Your task to perform on an android device: Search for the new iphone 13 pro on Etsy. Image 0: 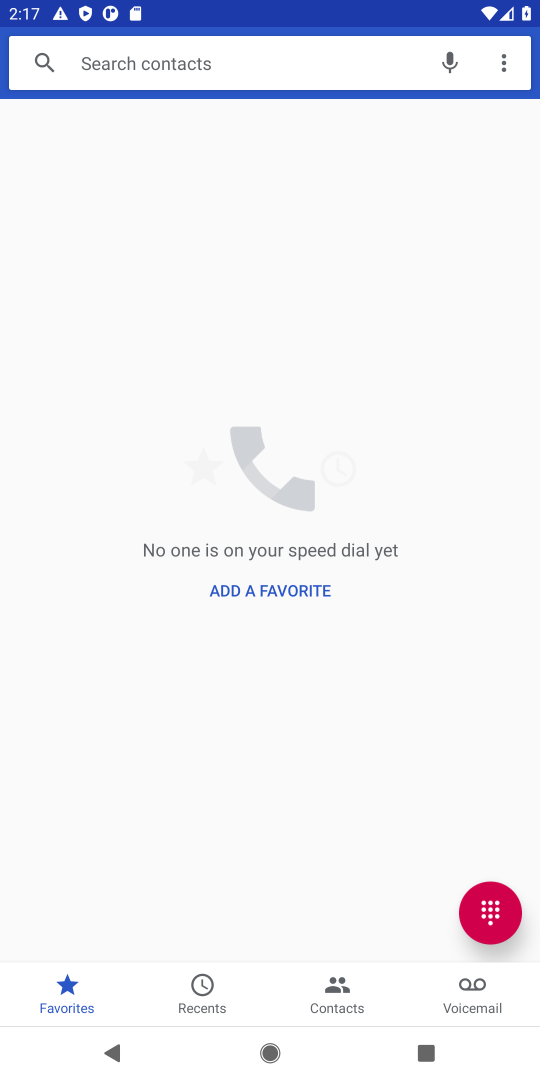
Step 0: press home button
Your task to perform on an android device: Search for the new iphone 13 pro on Etsy. Image 1: 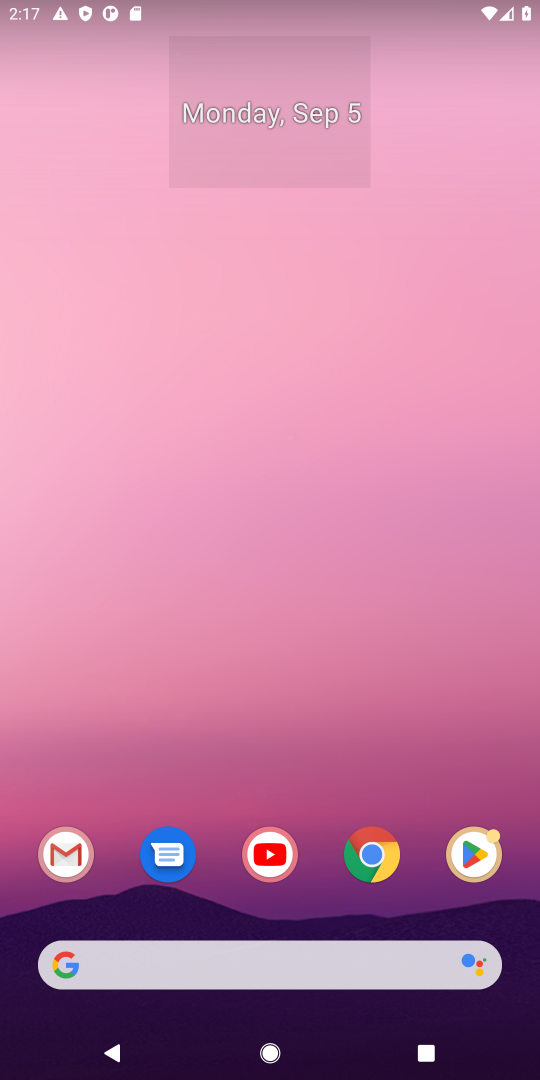
Step 1: click (392, 960)
Your task to perform on an android device: Search for the new iphone 13 pro on Etsy. Image 2: 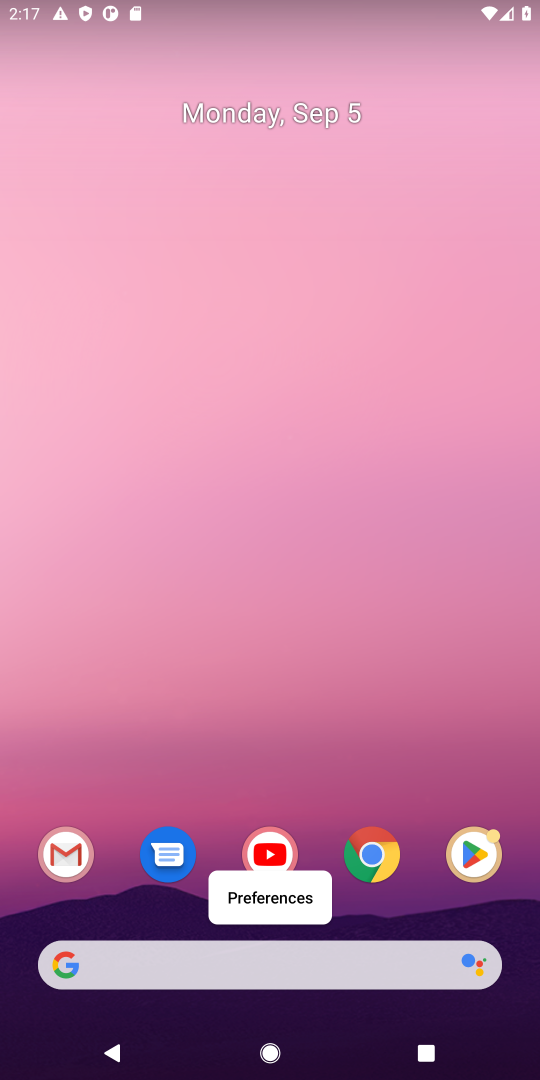
Step 2: click (197, 967)
Your task to perform on an android device: Search for the new iphone 13 pro on Etsy. Image 3: 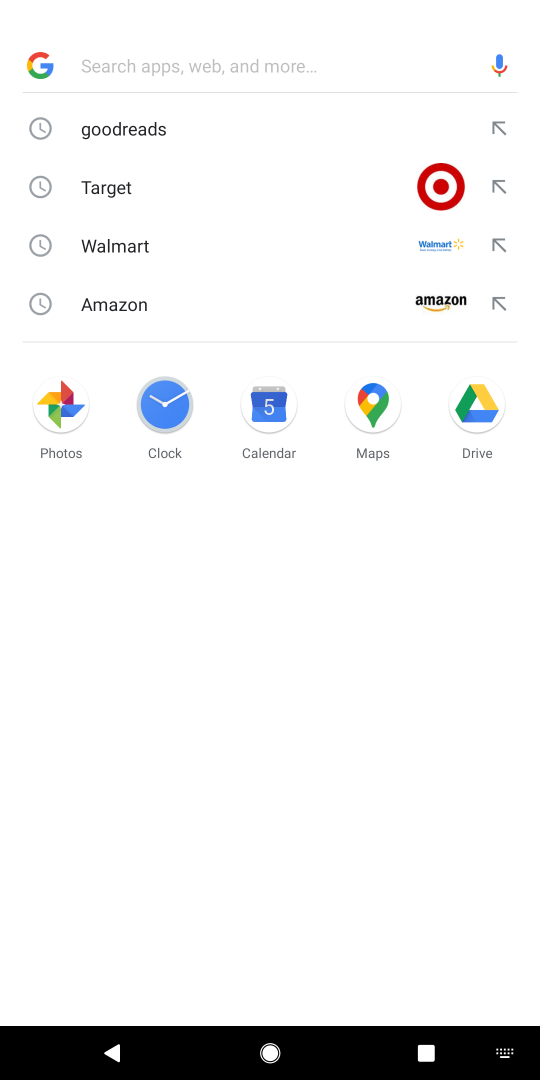
Step 3: type "etsy"
Your task to perform on an android device: Search for the new iphone 13 pro on Etsy. Image 4: 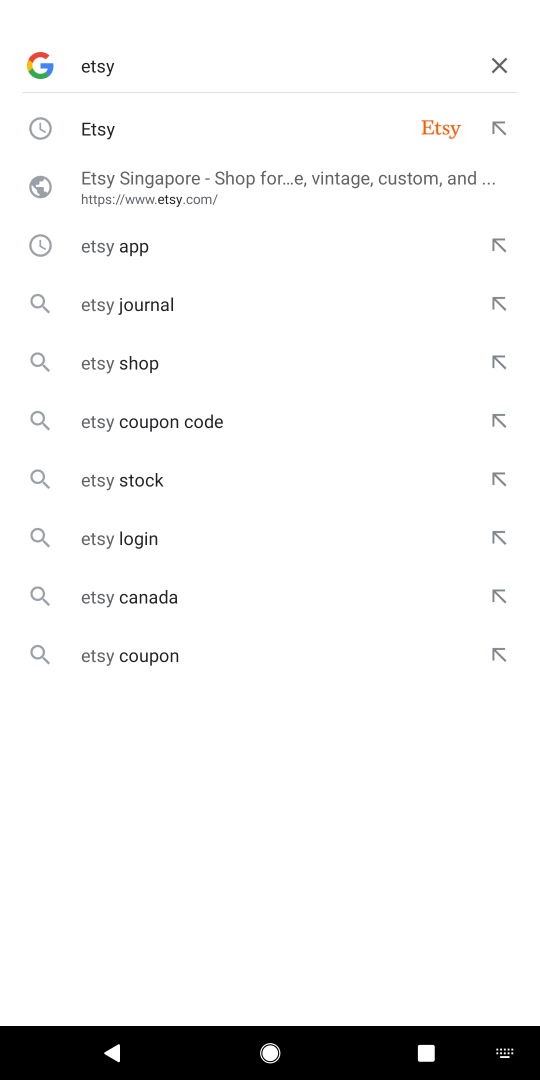
Step 4: press enter
Your task to perform on an android device: Search for the new iphone 13 pro on Etsy. Image 5: 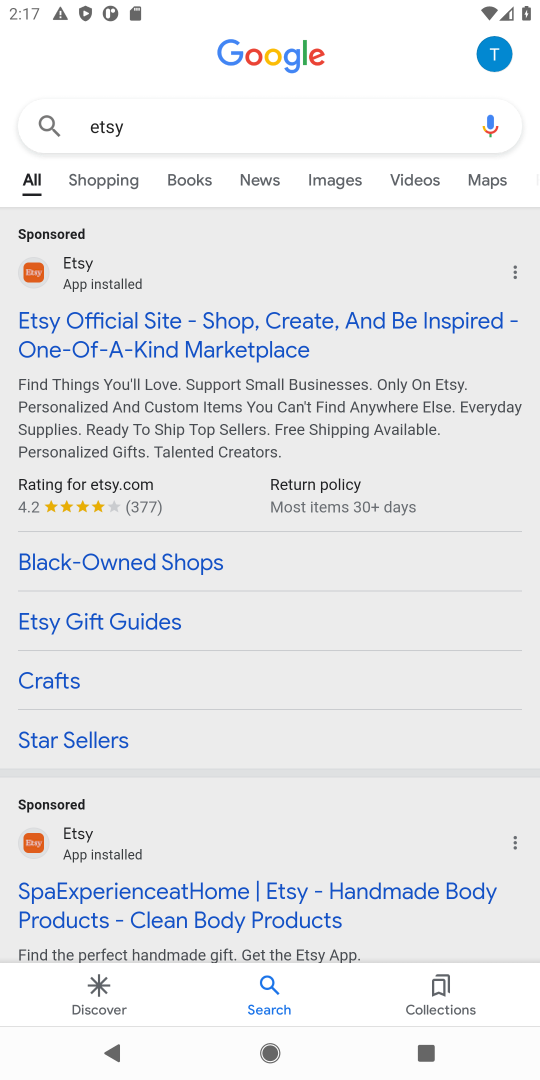
Step 5: click (161, 339)
Your task to perform on an android device: Search for the new iphone 13 pro on Etsy. Image 6: 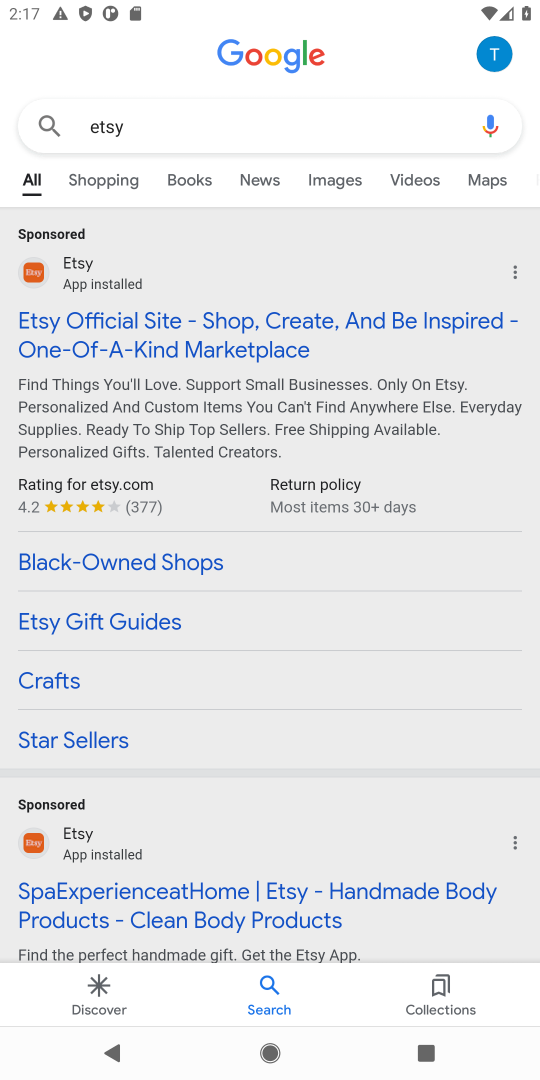
Step 6: click (230, 329)
Your task to perform on an android device: Search for the new iphone 13 pro on Etsy. Image 7: 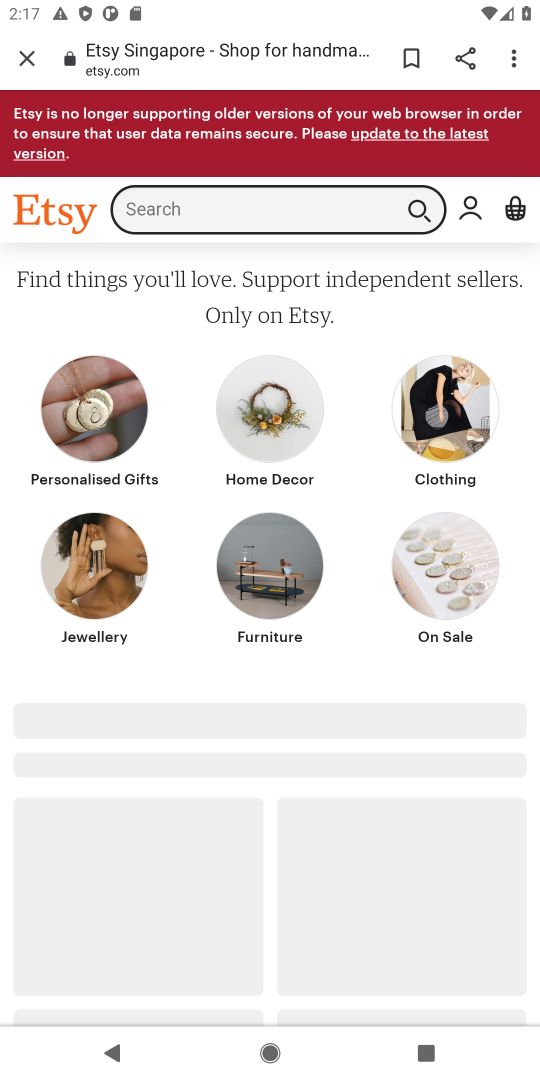
Step 7: click (258, 199)
Your task to perform on an android device: Search for the new iphone 13 pro on Etsy. Image 8: 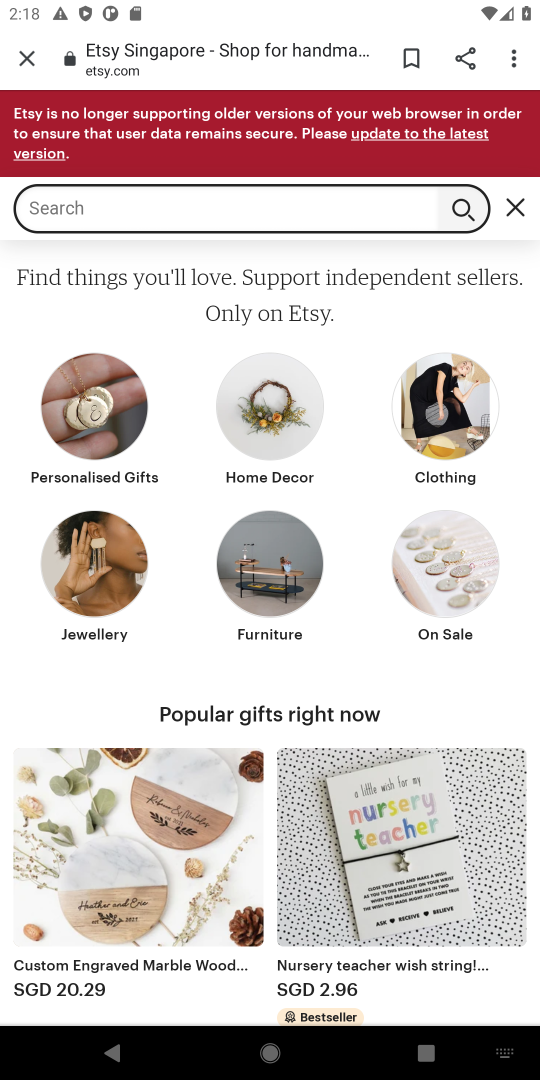
Step 8: type "new i phone 13 pro"
Your task to perform on an android device: Search for the new iphone 13 pro on Etsy. Image 9: 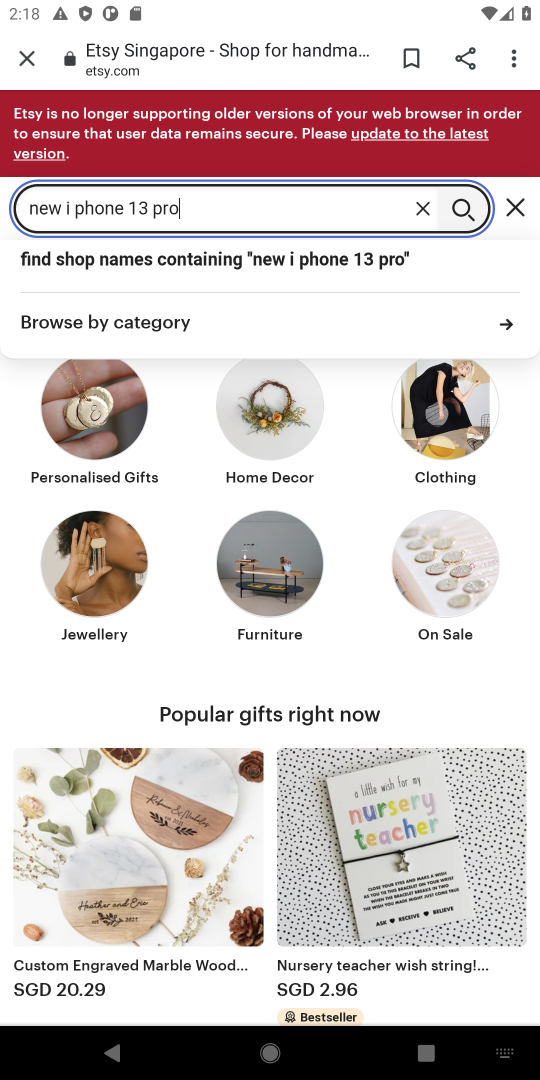
Step 9: click (325, 260)
Your task to perform on an android device: Search for the new iphone 13 pro on Etsy. Image 10: 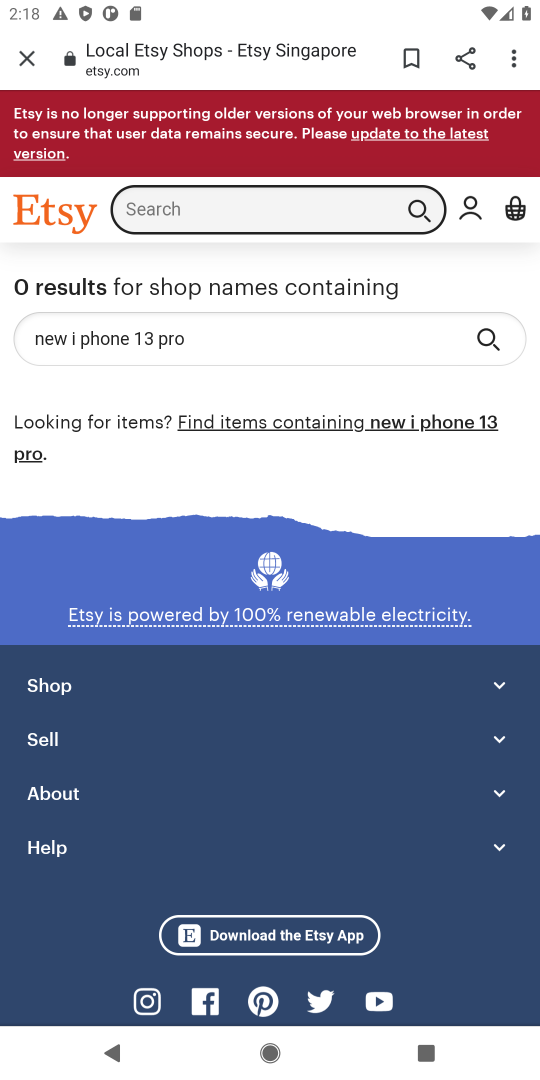
Step 10: drag from (331, 717) to (290, 322)
Your task to perform on an android device: Search for the new iphone 13 pro on Etsy. Image 11: 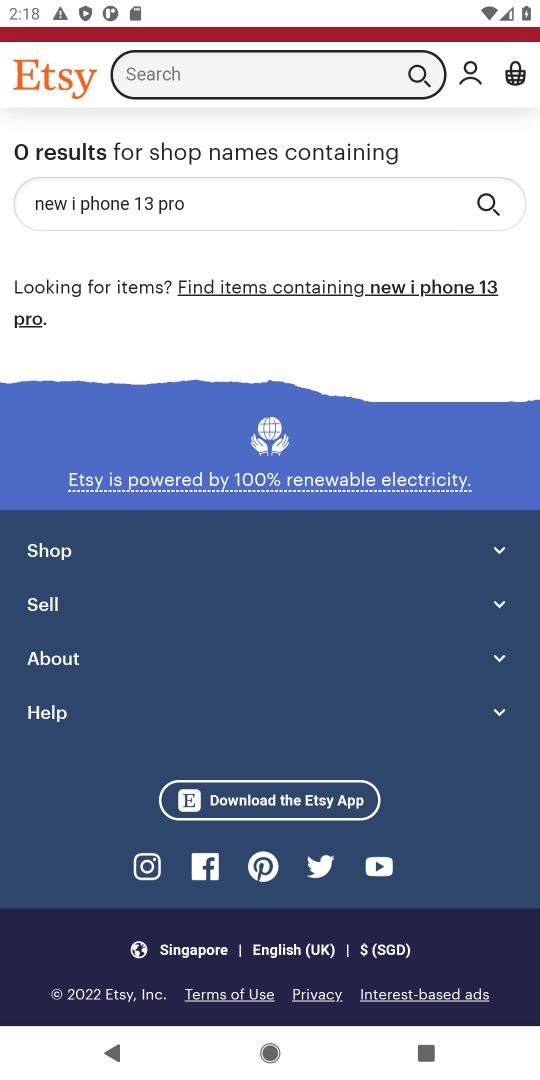
Step 11: drag from (345, 210) to (339, 564)
Your task to perform on an android device: Search for the new iphone 13 pro on Etsy. Image 12: 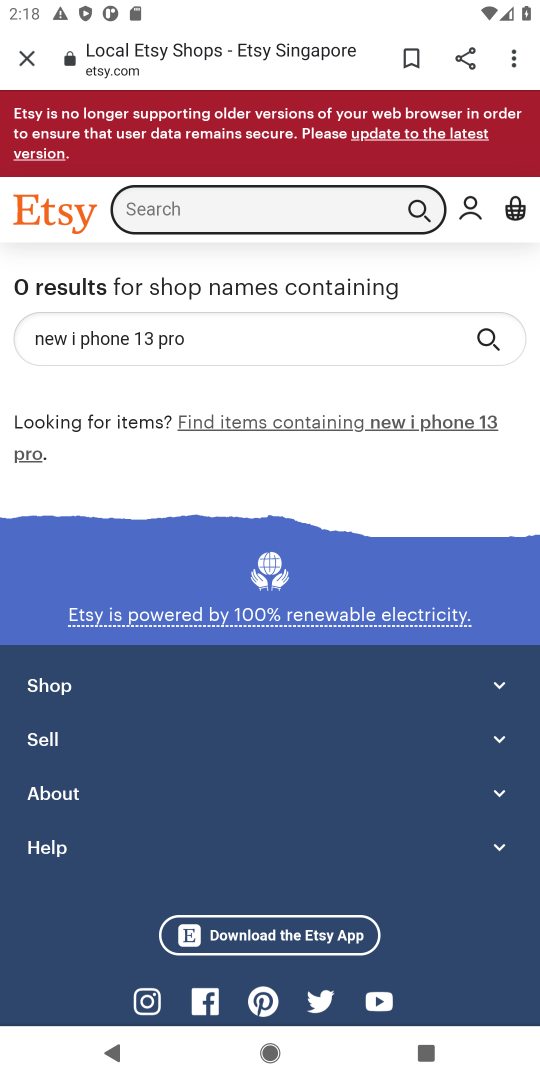
Step 12: click (487, 332)
Your task to perform on an android device: Search for the new iphone 13 pro on Etsy. Image 13: 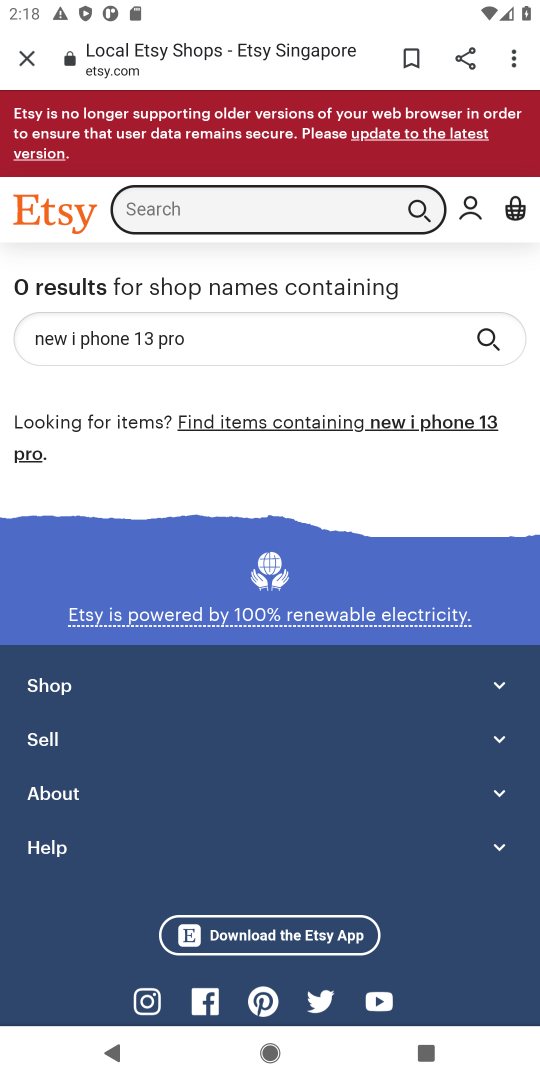
Step 13: click (66, 340)
Your task to perform on an android device: Search for the new iphone 13 pro on Etsy. Image 14: 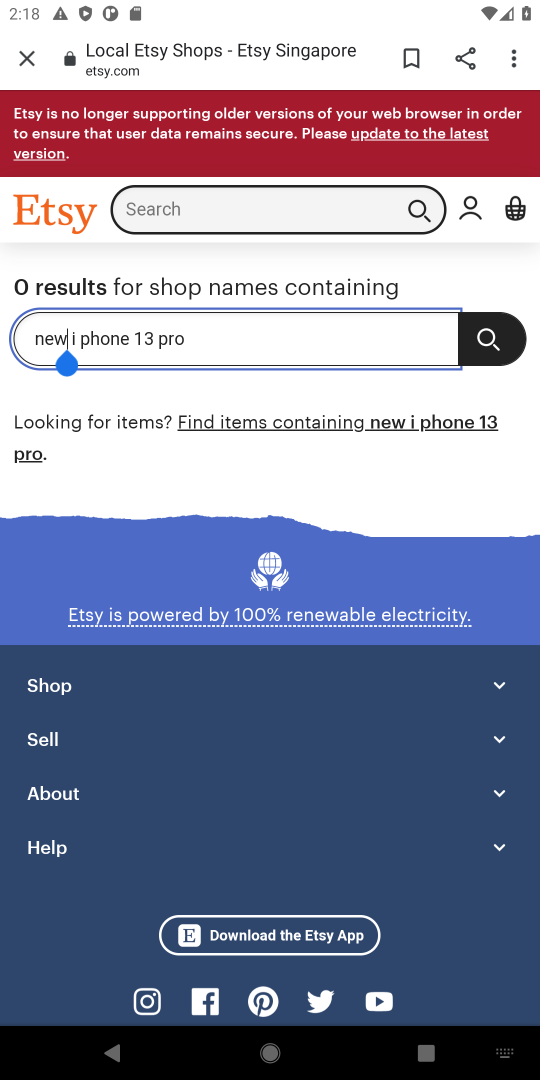
Step 14: task complete